Your task to perform on an android device: Open Chrome and go to the settings page Image 0: 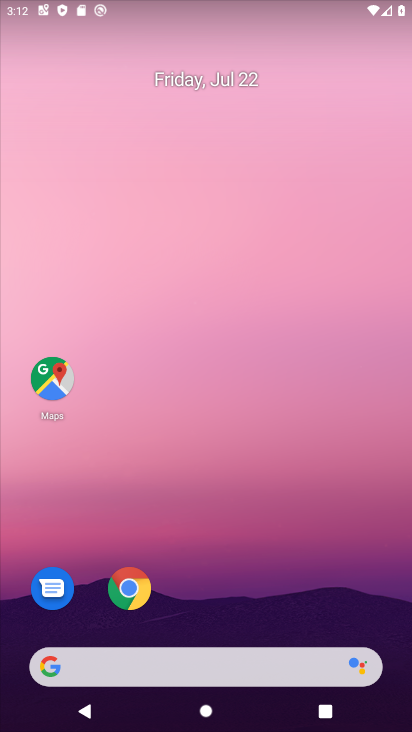
Step 0: drag from (199, 648) to (225, 395)
Your task to perform on an android device: Open Chrome and go to the settings page Image 1: 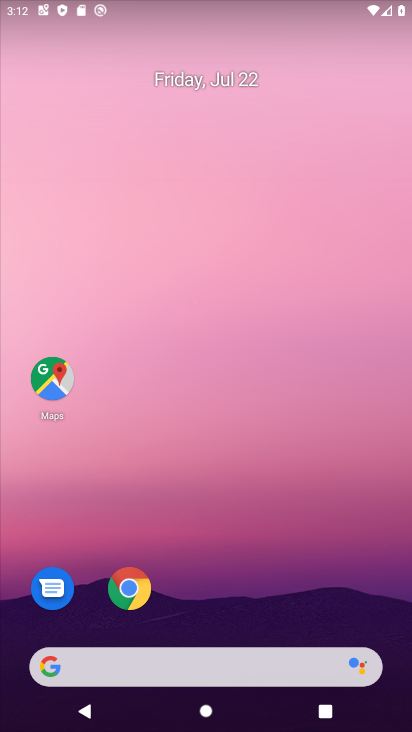
Step 1: drag from (199, 650) to (239, 214)
Your task to perform on an android device: Open Chrome and go to the settings page Image 2: 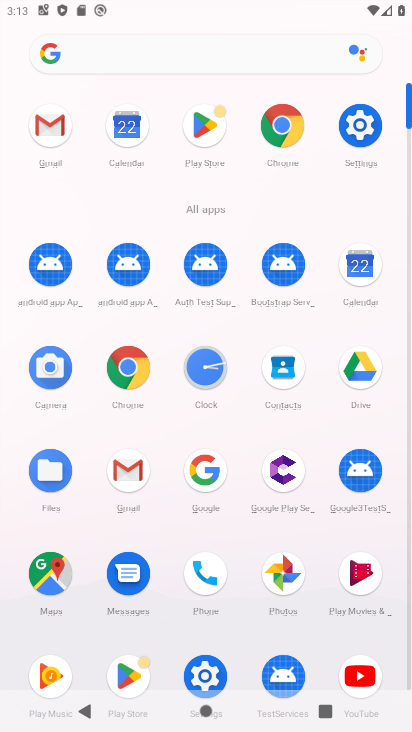
Step 2: click (134, 358)
Your task to perform on an android device: Open Chrome and go to the settings page Image 3: 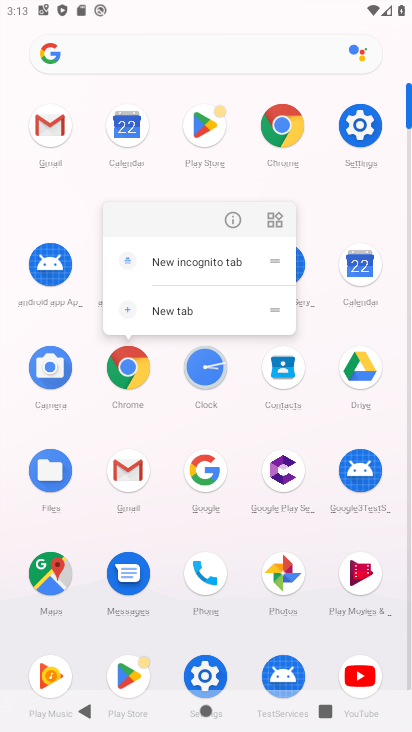
Step 3: click (134, 361)
Your task to perform on an android device: Open Chrome and go to the settings page Image 4: 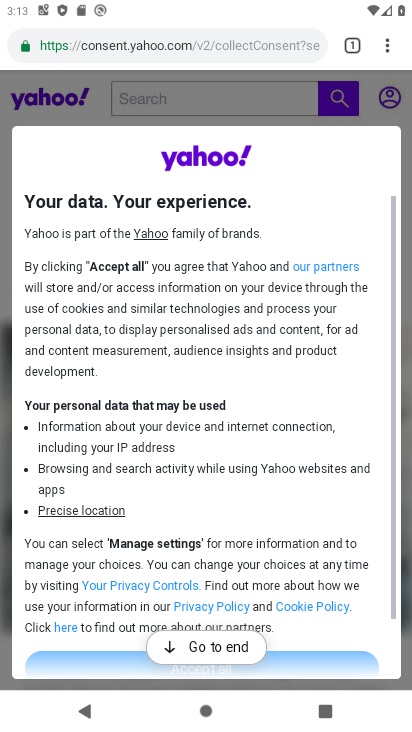
Step 4: click (354, 43)
Your task to perform on an android device: Open Chrome and go to the settings page Image 5: 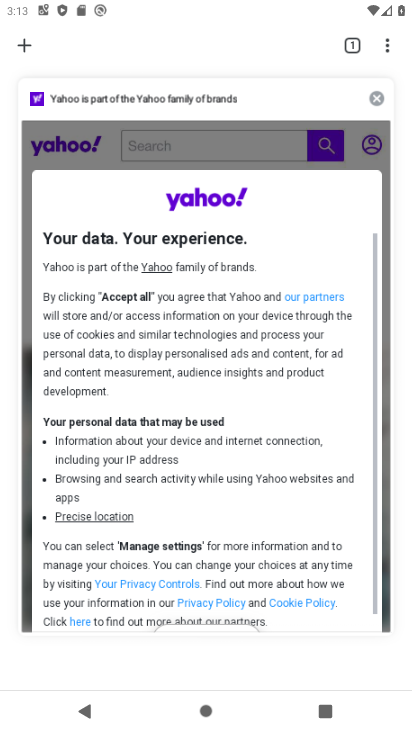
Step 5: click (379, 102)
Your task to perform on an android device: Open Chrome and go to the settings page Image 6: 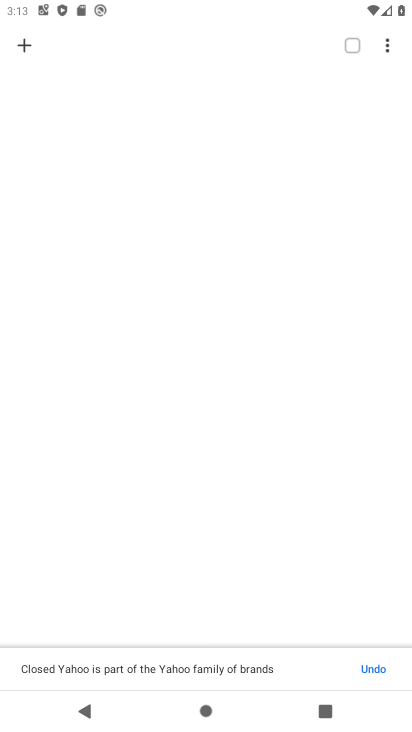
Step 6: click (29, 42)
Your task to perform on an android device: Open Chrome and go to the settings page Image 7: 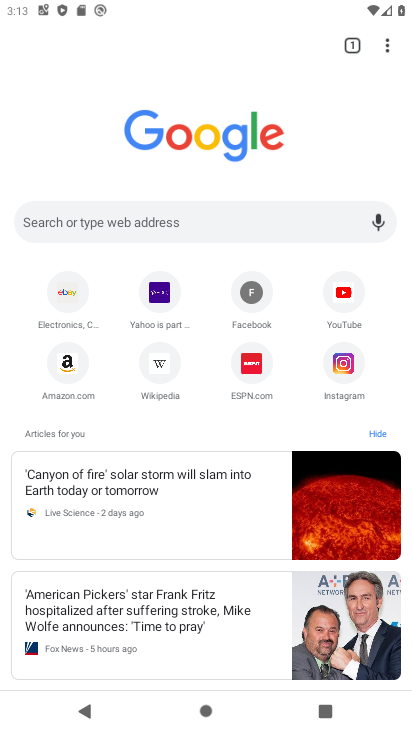
Step 7: click (385, 41)
Your task to perform on an android device: Open Chrome and go to the settings page Image 8: 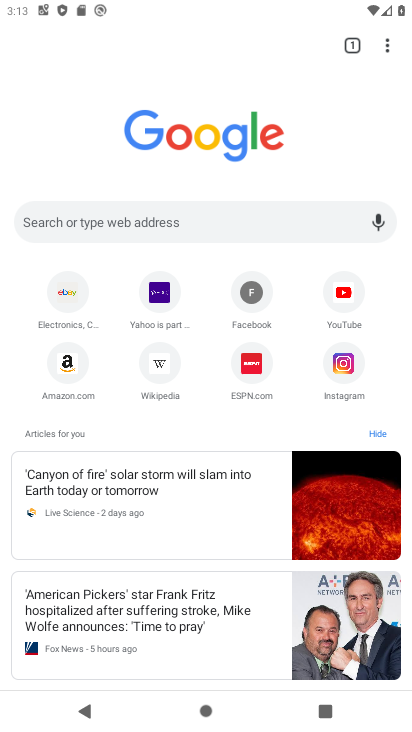
Step 8: click (389, 46)
Your task to perform on an android device: Open Chrome and go to the settings page Image 9: 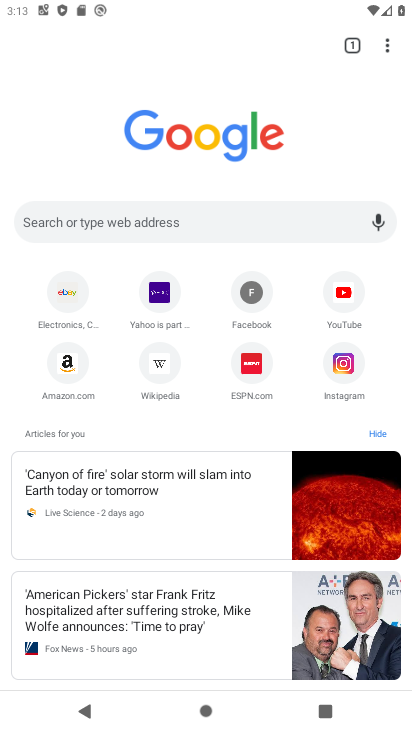
Step 9: click (389, 46)
Your task to perform on an android device: Open Chrome and go to the settings page Image 10: 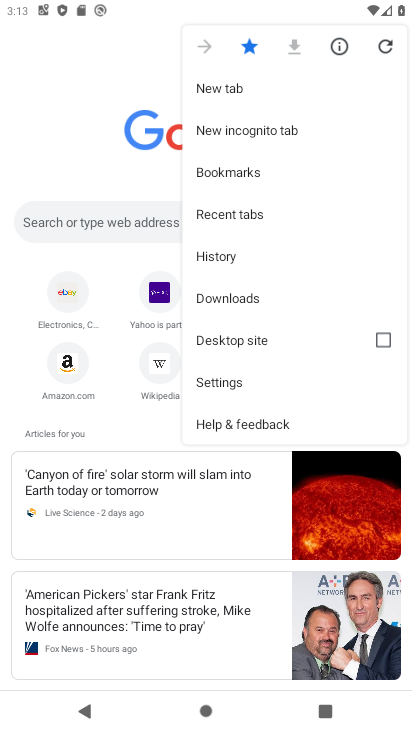
Step 10: click (226, 377)
Your task to perform on an android device: Open Chrome and go to the settings page Image 11: 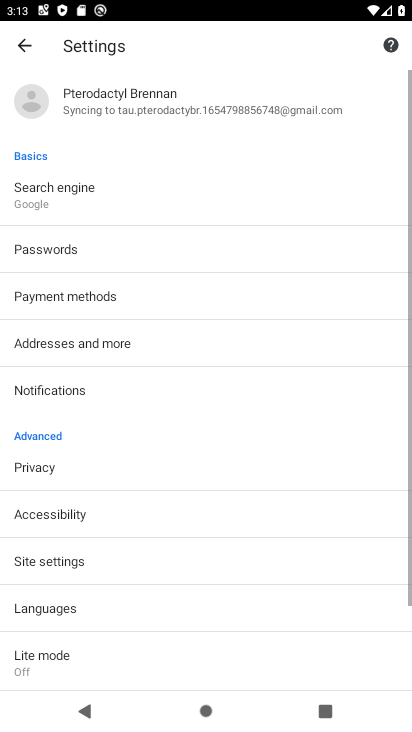
Step 11: task complete